Your task to perform on an android device: Go to privacy settings Image 0: 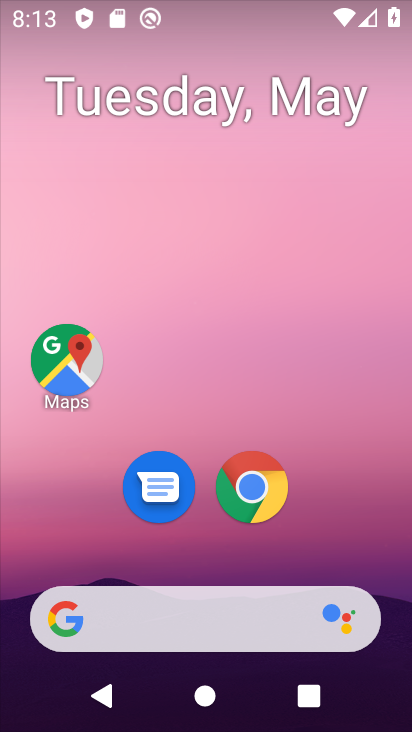
Step 0: drag from (336, 550) to (354, 103)
Your task to perform on an android device: Go to privacy settings Image 1: 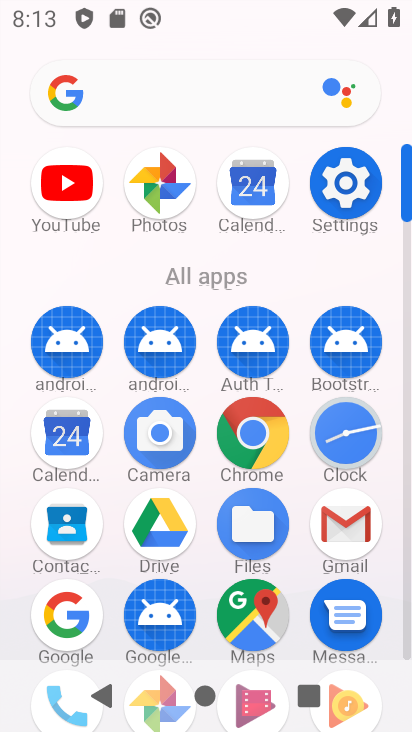
Step 1: click (352, 195)
Your task to perform on an android device: Go to privacy settings Image 2: 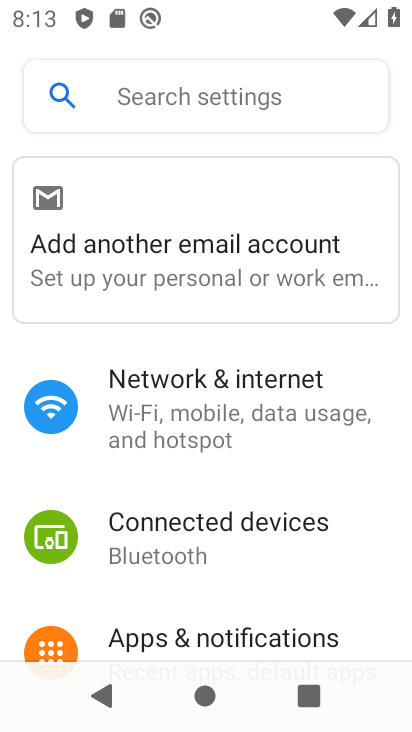
Step 2: drag from (349, 618) to (360, 155)
Your task to perform on an android device: Go to privacy settings Image 3: 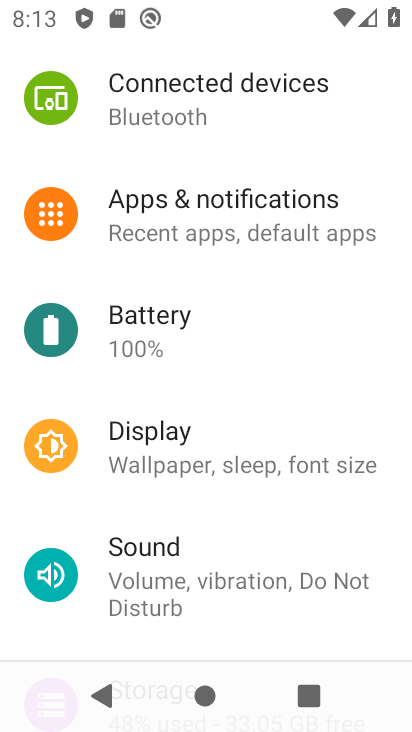
Step 3: drag from (375, 626) to (370, 180)
Your task to perform on an android device: Go to privacy settings Image 4: 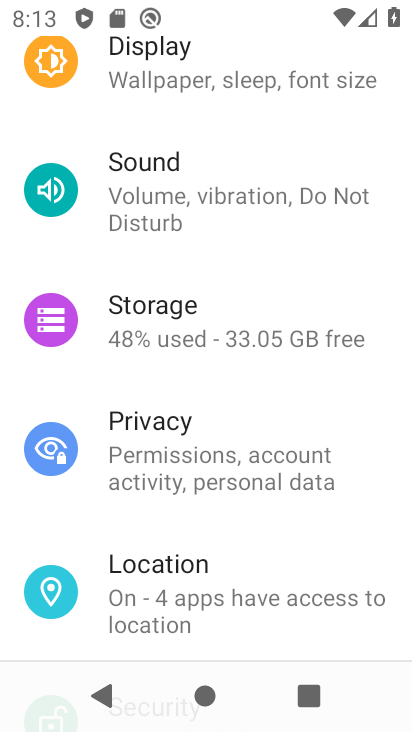
Step 4: click (203, 468)
Your task to perform on an android device: Go to privacy settings Image 5: 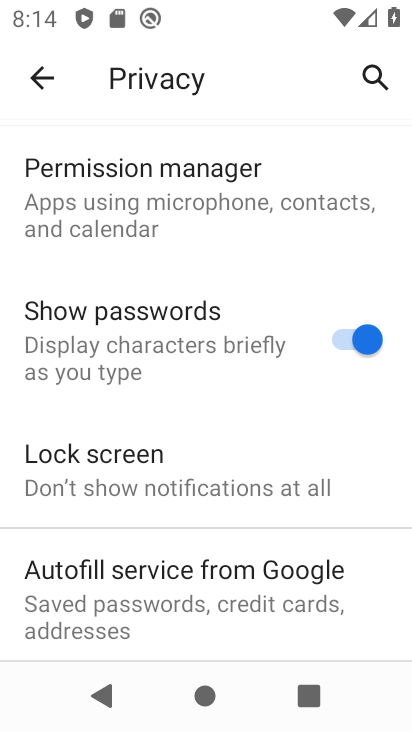
Step 5: task complete